Your task to perform on an android device: see tabs open on other devices in the chrome app Image 0: 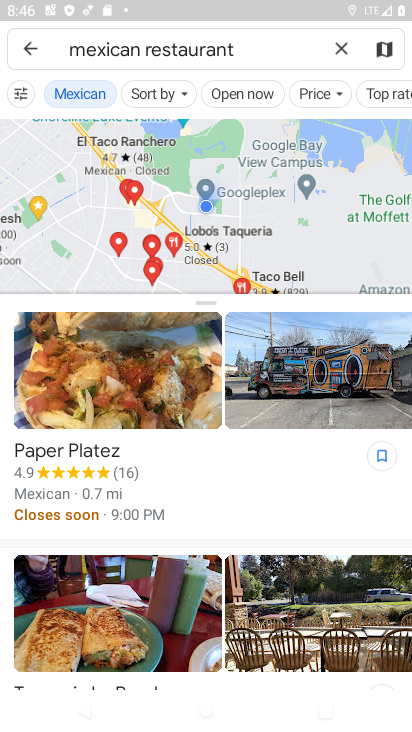
Step 0: click (410, 547)
Your task to perform on an android device: see tabs open on other devices in the chrome app Image 1: 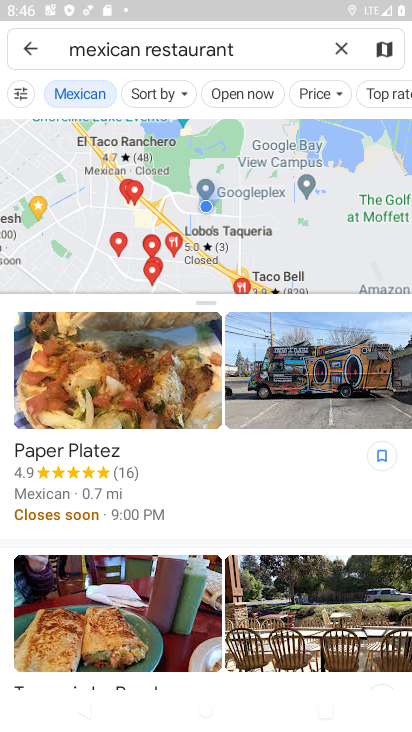
Step 1: press back button
Your task to perform on an android device: see tabs open on other devices in the chrome app Image 2: 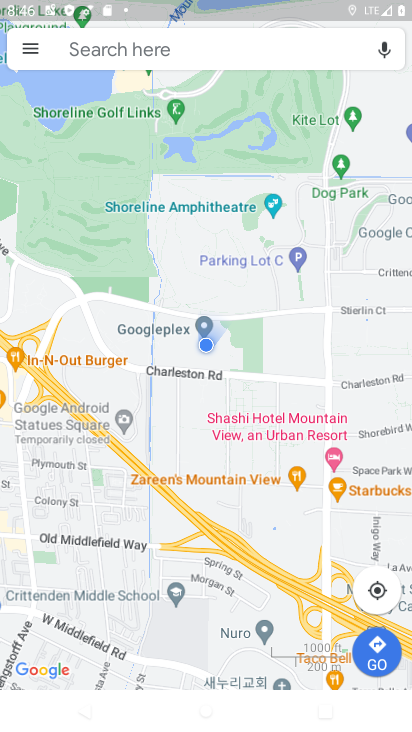
Step 2: press home button
Your task to perform on an android device: see tabs open on other devices in the chrome app Image 3: 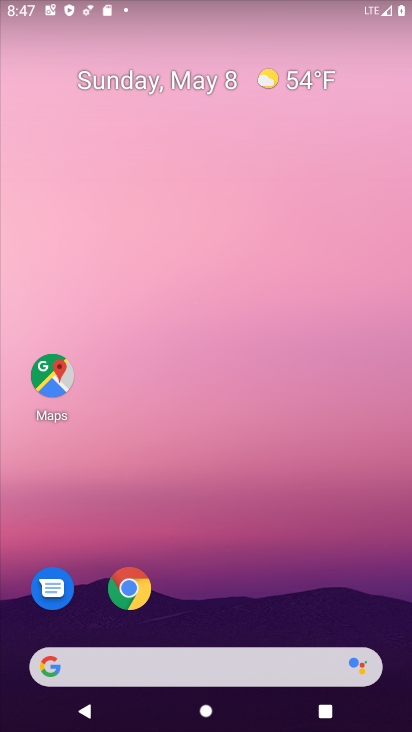
Step 3: click (131, 586)
Your task to perform on an android device: see tabs open on other devices in the chrome app Image 4: 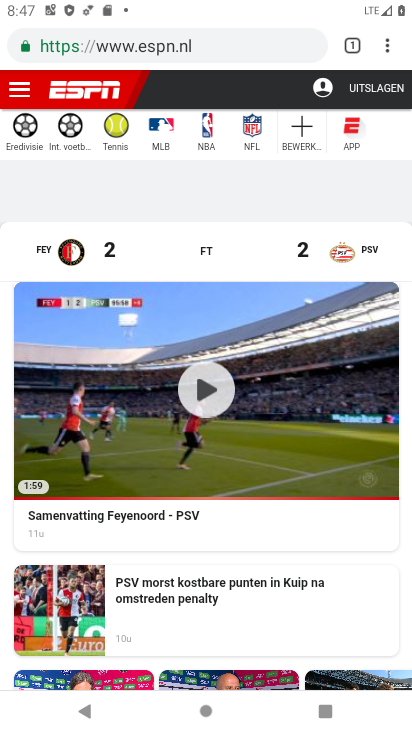
Step 4: click (358, 45)
Your task to perform on an android device: see tabs open on other devices in the chrome app Image 5: 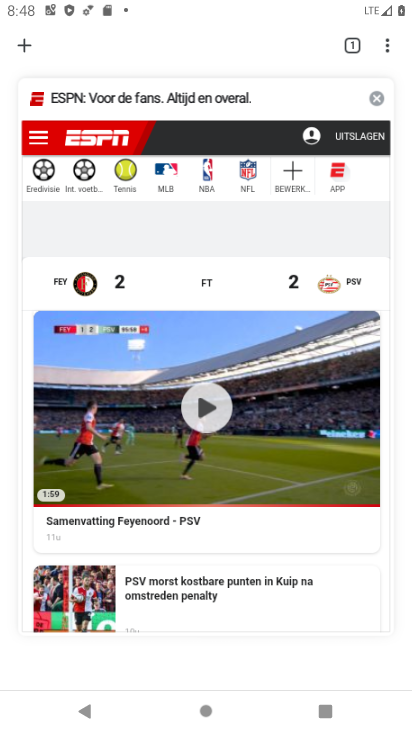
Step 5: task complete